Your task to perform on an android device: turn on location history Image 0: 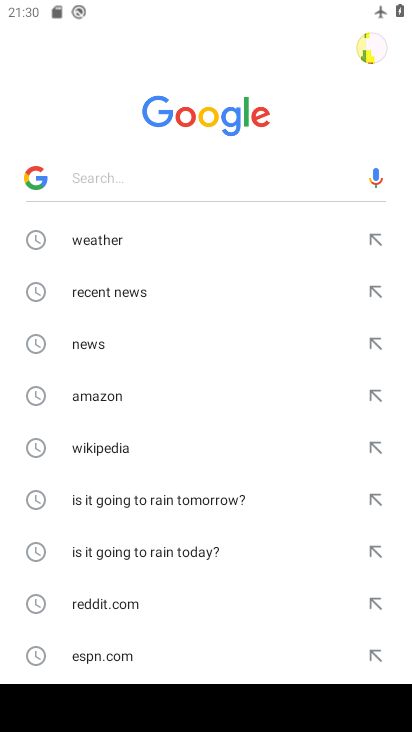
Step 0: press home button
Your task to perform on an android device: turn on location history Image 1: 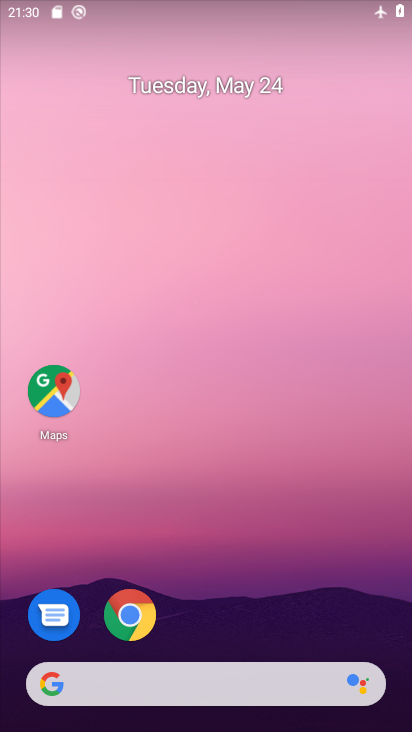
Step 1: click (30, 377)
Your task to perform on an android device: turn on location history Image 2: 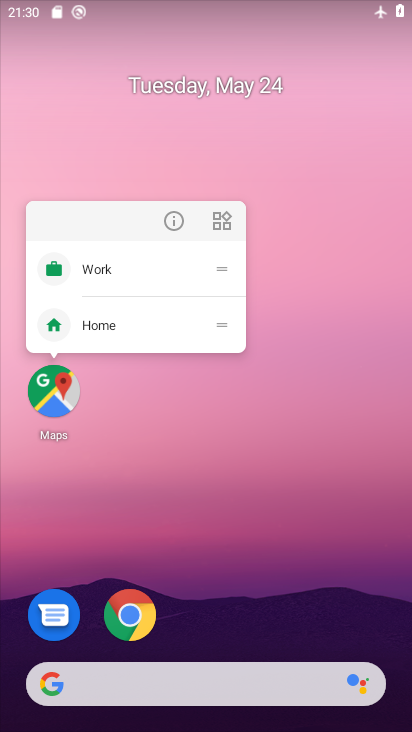
Step 2: click (42, 386)
Your task to perform on an android device: turn on location history Image 3: 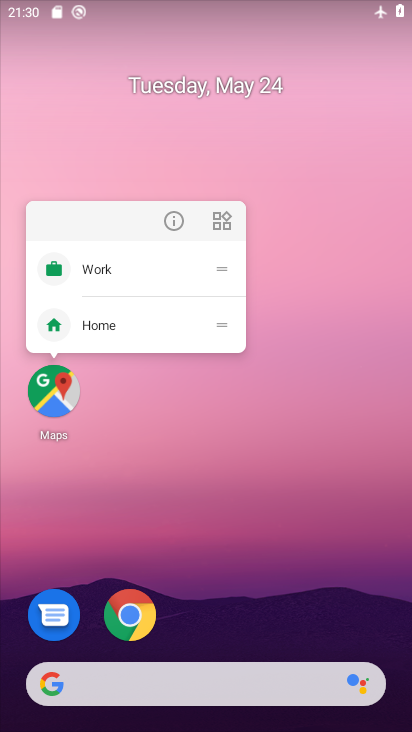
Step 3: click (47, 399)
Your task to perform on an android device: turn on location history Image 4: 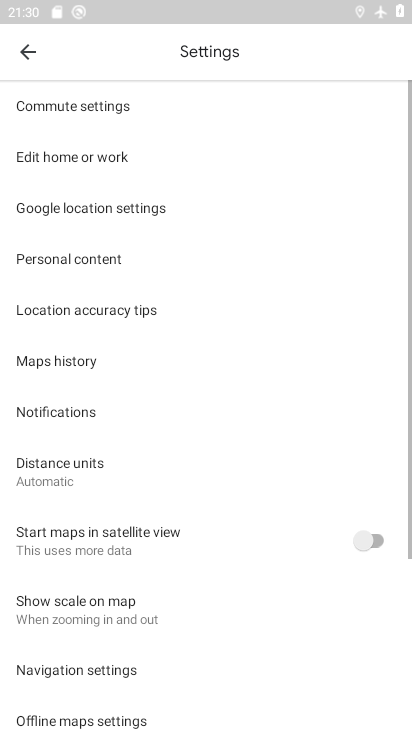
Step 4: click (7, 49)
Your task to perform on an android device: turn on location history Image 5: 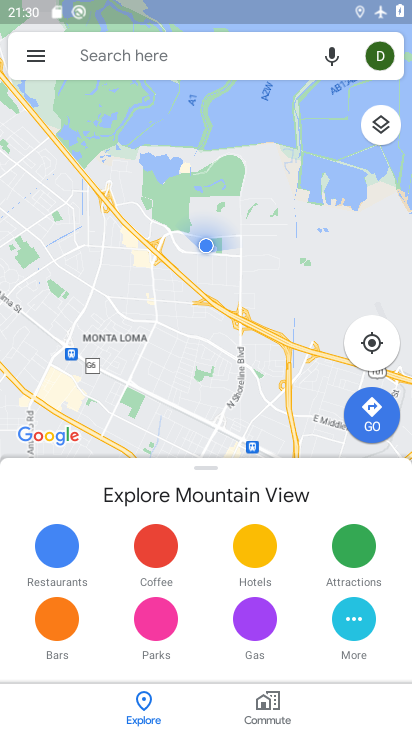
Step 5: click (35, 55)
Your task to perform on an android device: turn on location history Image 6: 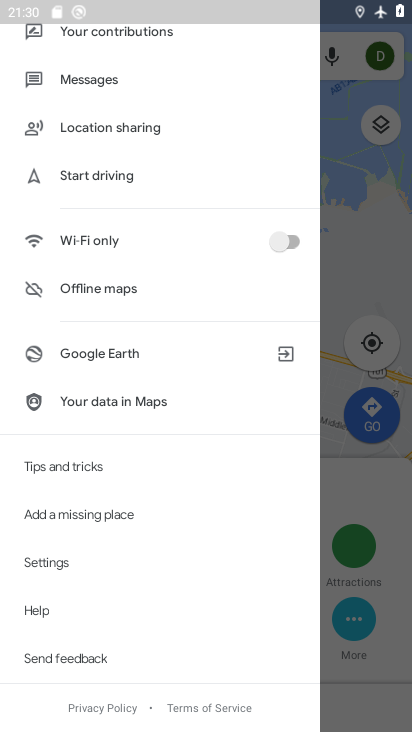
Step 6: click (76, 572)
Your task to perform on an android device: turn on location history Image 7: 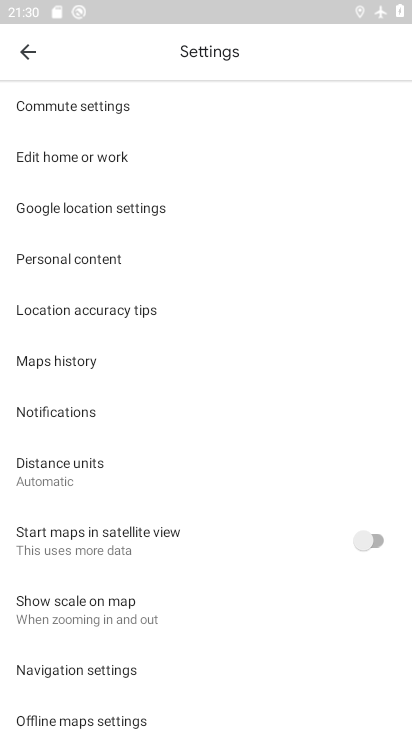
Step 7: click (26, 44)
Your task to perform on an android device: turn on location history Image 8: 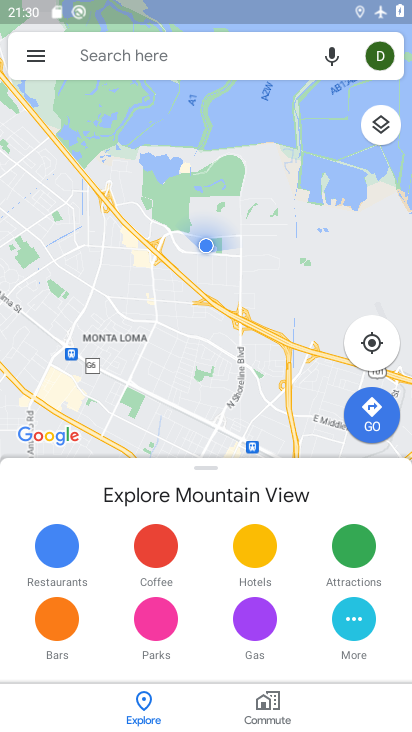
Step 8: click (29, 46)
Your task to perform on an android device: turn on location history Image 9: 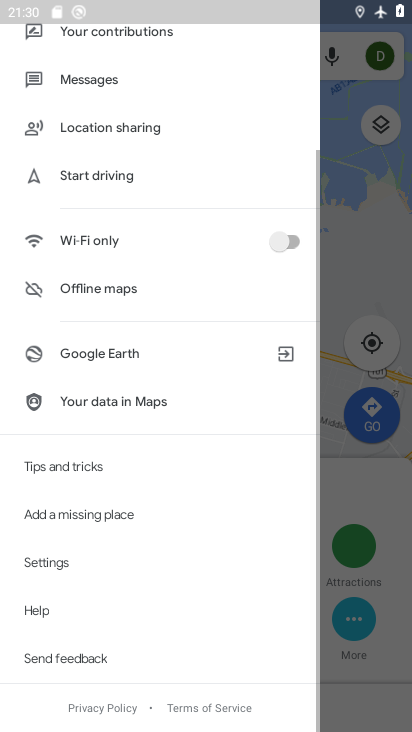
Step 9: drag from (162, 162) to (183, 592)
Your task to perform on an android device: turn on location history Image 10: 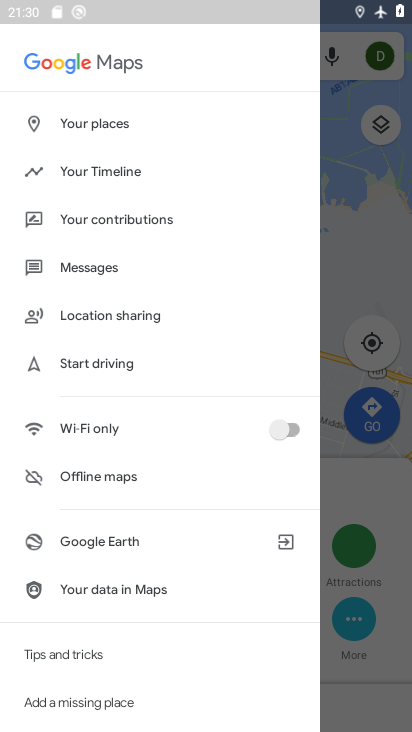
Step 10: click (130, 159)
Your task to perform on an android device: turn on location history Image 11: 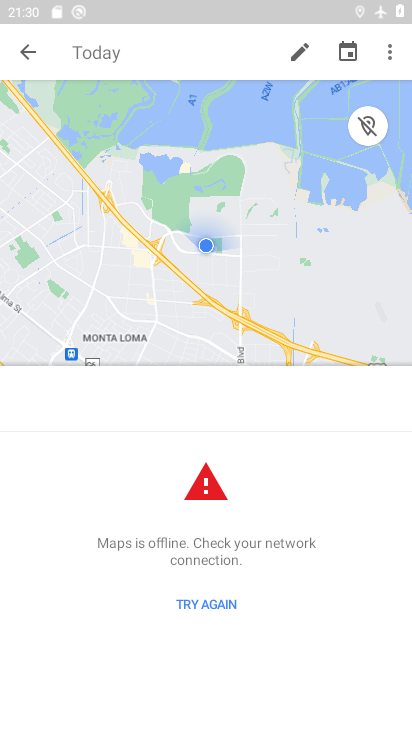
Step 11: click (395, 41)
Your task to perform on an android device: turn on location history Image 12: 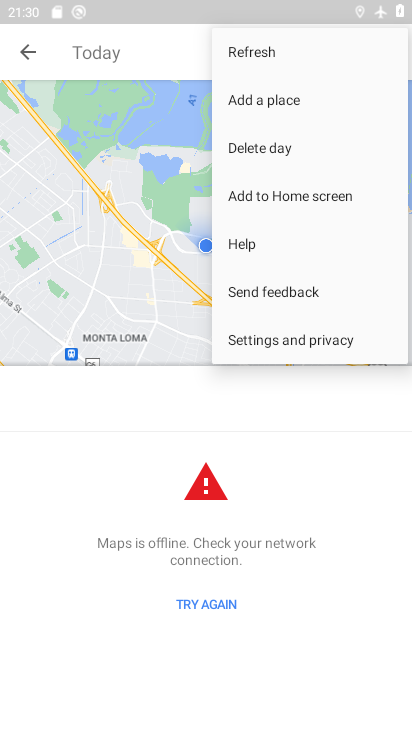
Step 12: click (281, 334)
Your task to perform on an android device: turn on location history Image 13: 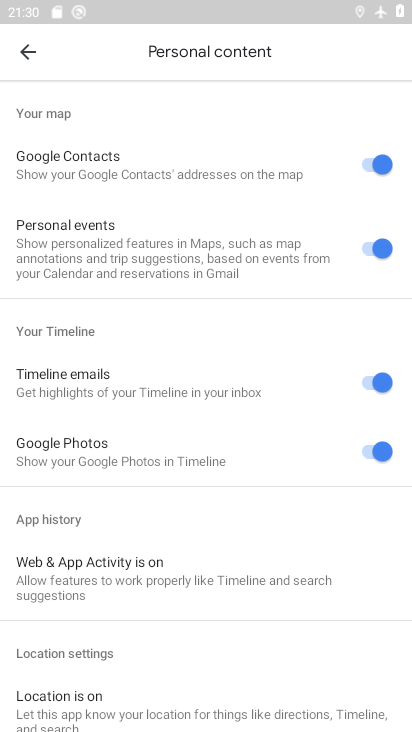
Step 13: click (39, 44)
Your task to perform on an android device: turn on location history Image 14: 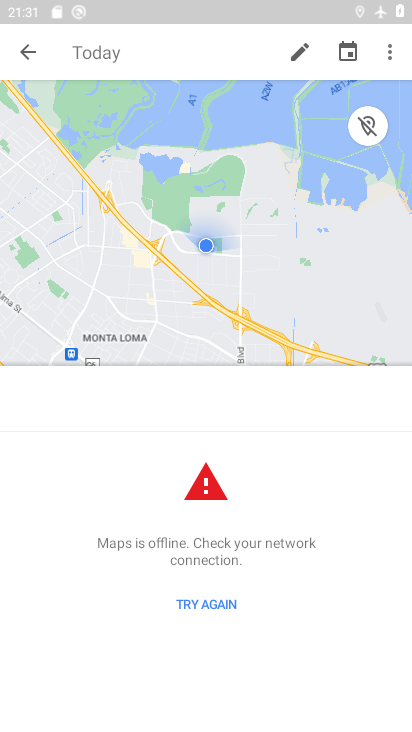
Step 14: click (382, 49)
Your task to perform on an android device: turn on location history Image 15: 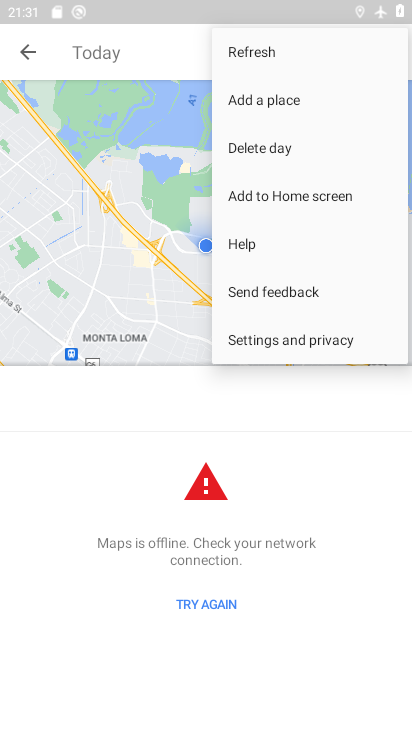
Step 15: click (280, 335)
Your task to perform on an android device: turn on location history Image 16: 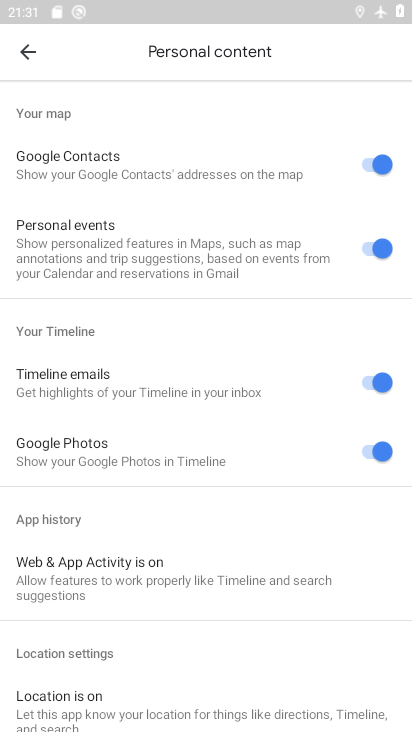
Step 16: click (34, 41)
Your task to perform on an android device: turn on location history Image 17: 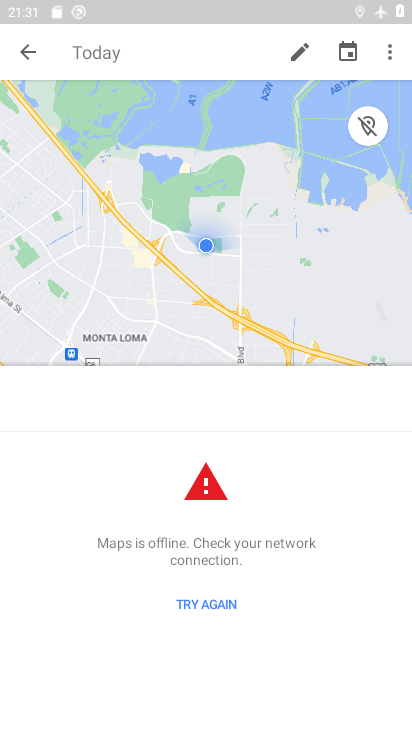
Step 17: click (381, 55)
Your task to perform on an android device: turn on location history Image 18: 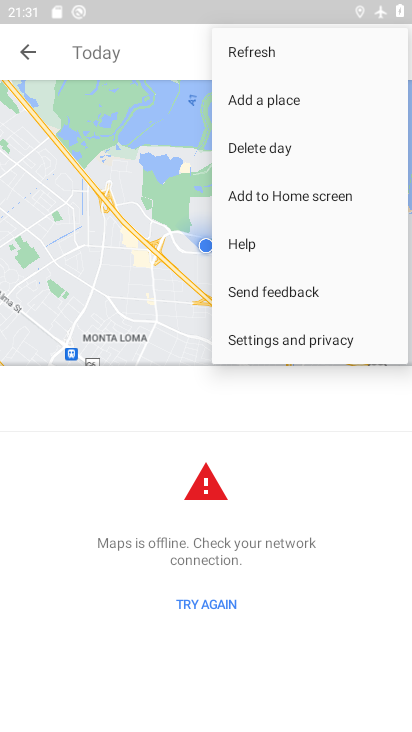
Step 18: click (300, 341)
Your task to perform on an android device: turn on location history Image 19: 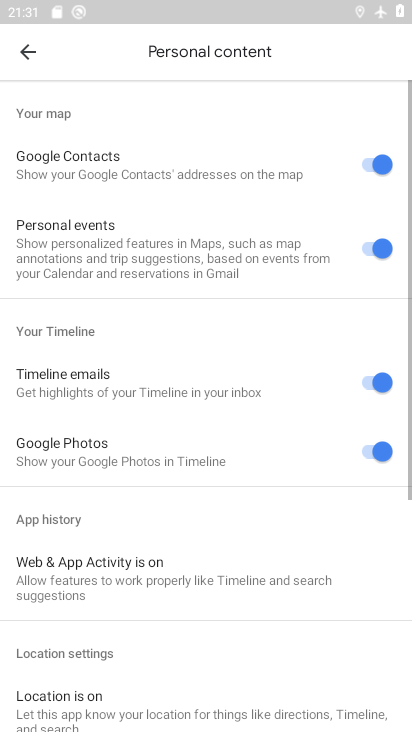
Step 19: drag from (251, 528) to (256, 162)
Your task to perform on an android device: turn on location history Image 20: 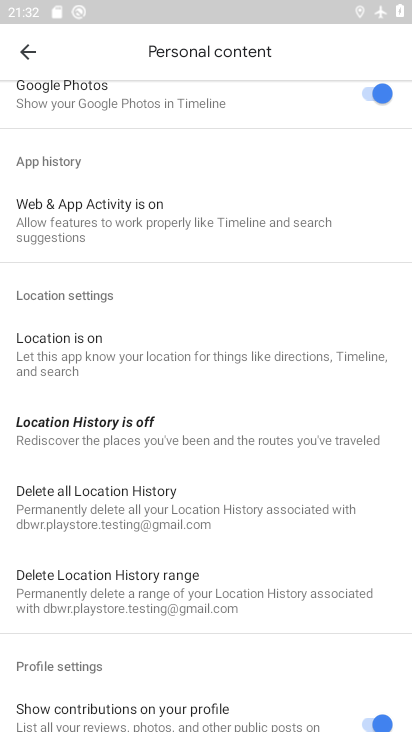
Step 20: click (157, 354)
Your task to perform on an android device: turn on location history Image 21: 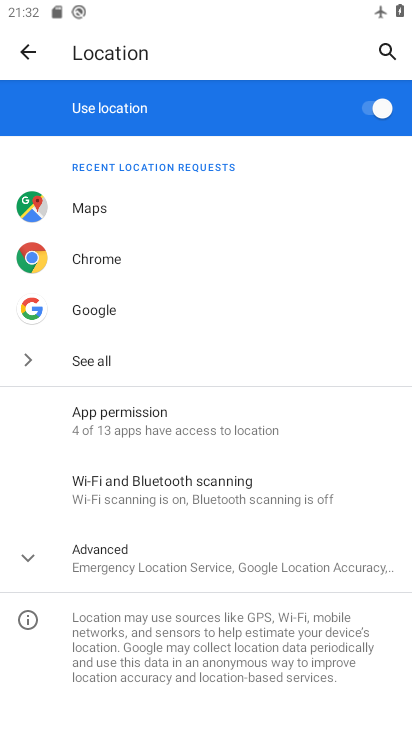
Step 21: task complete